Your task to perform on an android device: open sync settings in chrome Image 0: 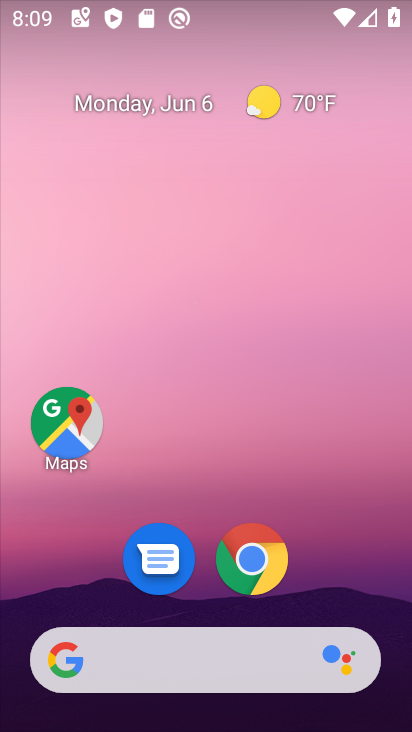
Step 0: click (248, 560)
Your task to perform on an android device: open sync settings in chrome Image 1: 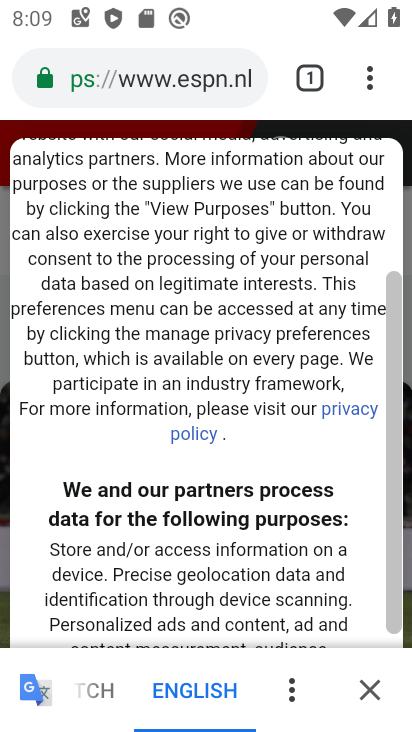
Step 1: click (370, 85)
Your task to perform on an android device: open sync settings in chrome Image 2: 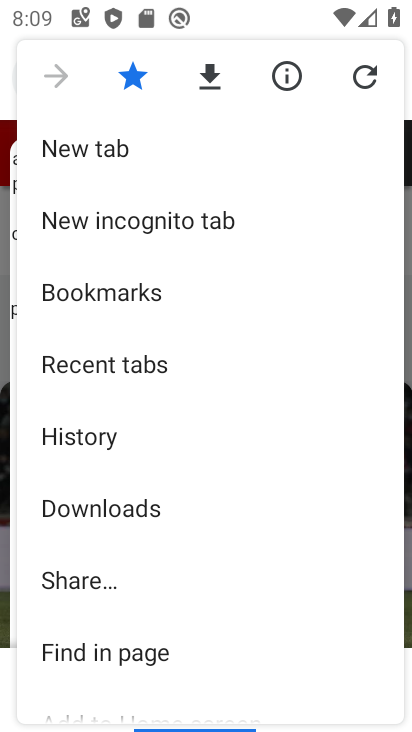
Step 2: drag from (74, 648) to (118, 256)
Your task to perform on an android device: open sync settings in chrome Image 3: 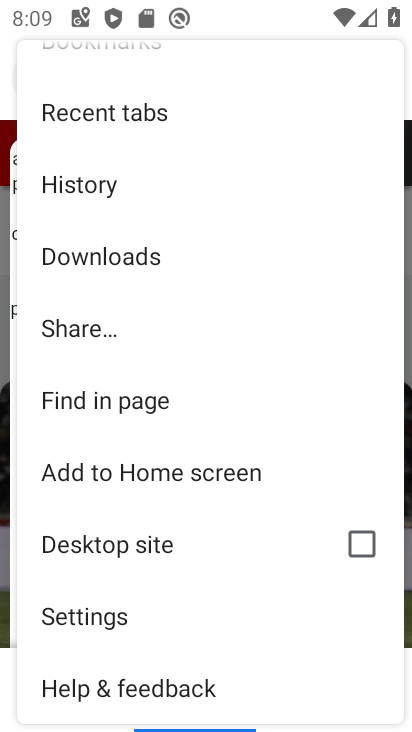
Step 3: click (73, 607)
Your task to perform on an android device: open sync settings in chrome Image 4: 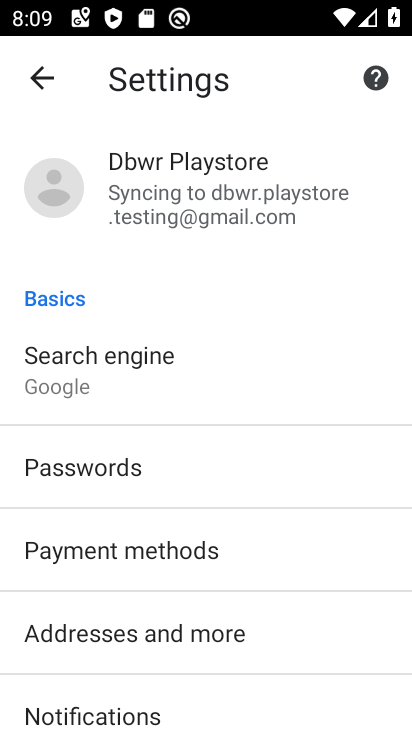
Step 4: drag from (106, 677) to (106, 276)
Your task to perform on an android device: open sync settings in chrome Image 5: 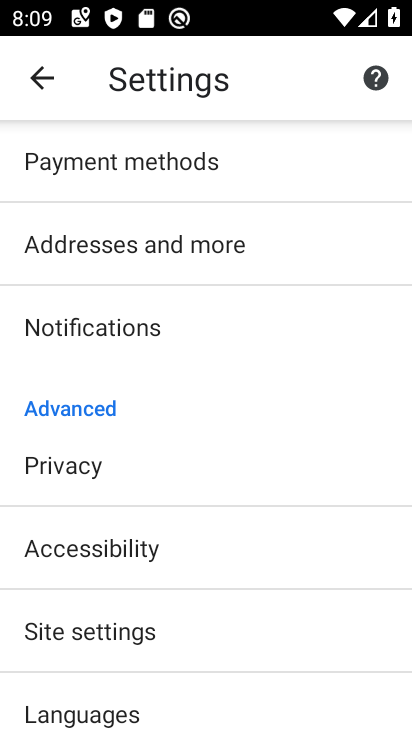
Step 5: click (82, 628)
Your task to perform on an android device: open sync settings in chrome Image 6: 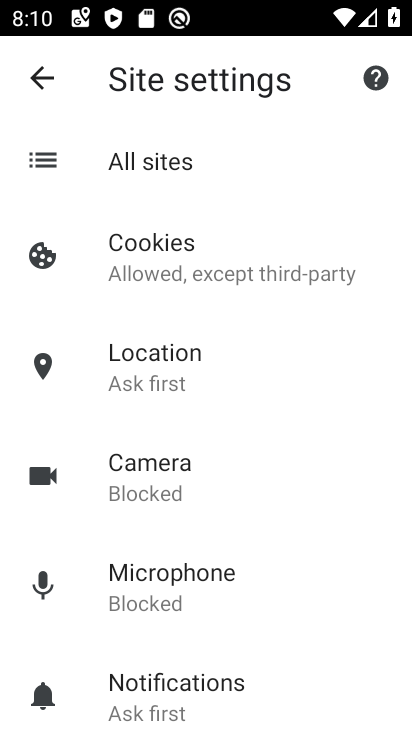
Step 6: drag from (185, 702) to (194, 268)
Your task to perform on an android device: open sync settings in chrome Image 7: 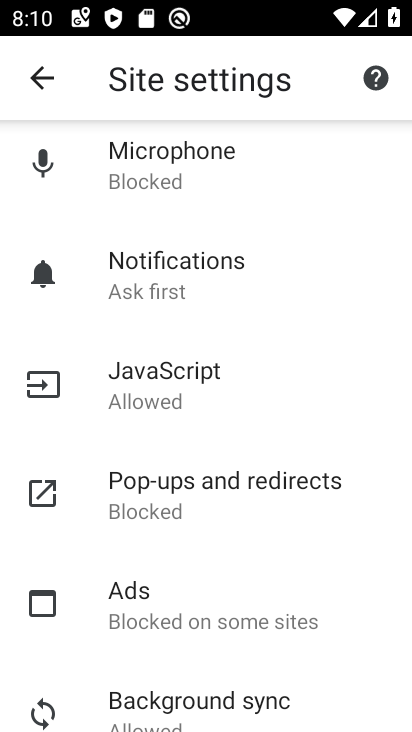
Step 7: drag from (187, 606) to (206, 239)
Your task to perform on an android device: open sync settings in chrome Image 8: 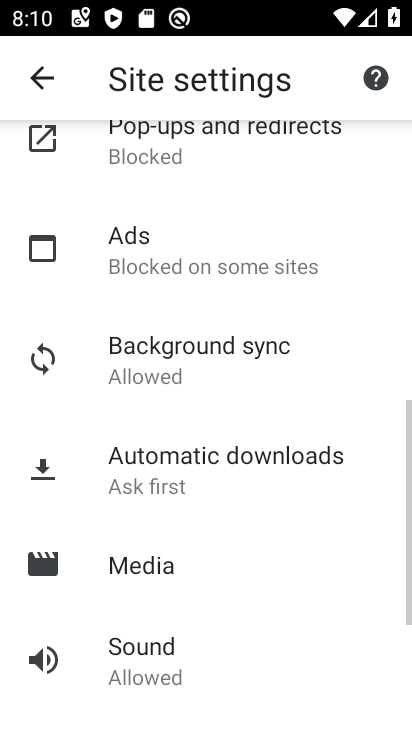
Step 8: click (172, 361)
Your task to perform on an android device: open sync settings in chrome Image 9: 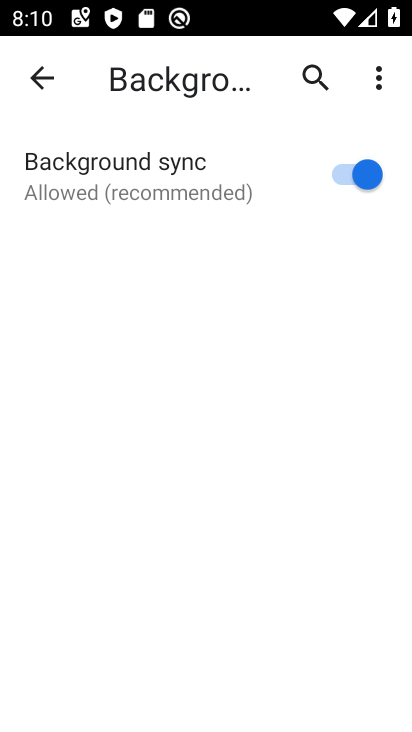
Step 9: task complete